Your task to perform on an android device: Go to notification settings Image 0: 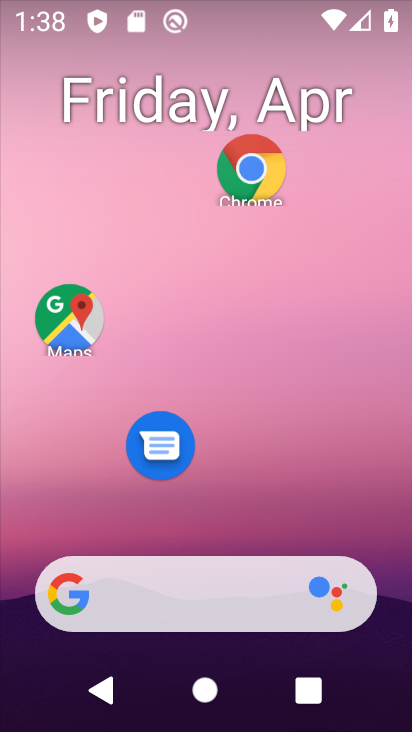
Step 0: drag from (256, 577) to (239, 77)
Your task to perform on an android device: Go to notification settings Image 1: 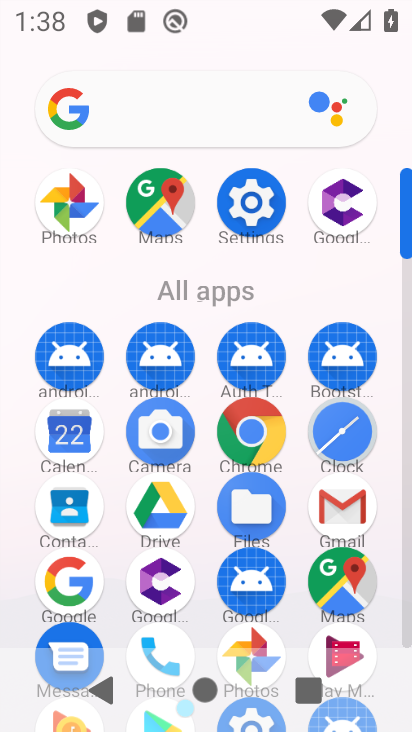
Step 1: drag from (182, 607) to (294, 132)
Your task to perform on an android device: Go to notification settings Image 2: 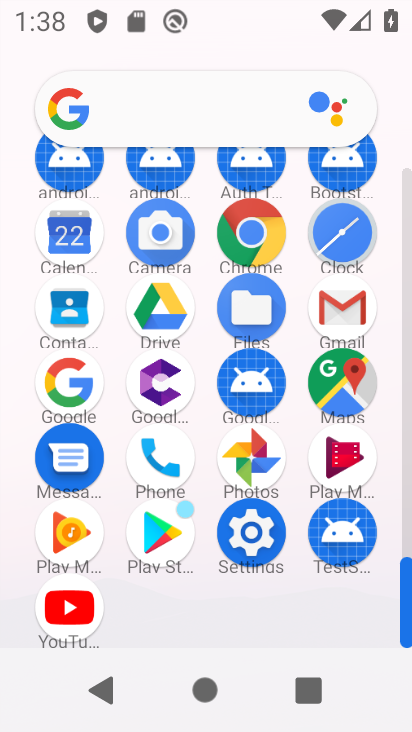
Step 2: click (250, 548)
Your task to perform on an android device: Go to notification settings Image 3: 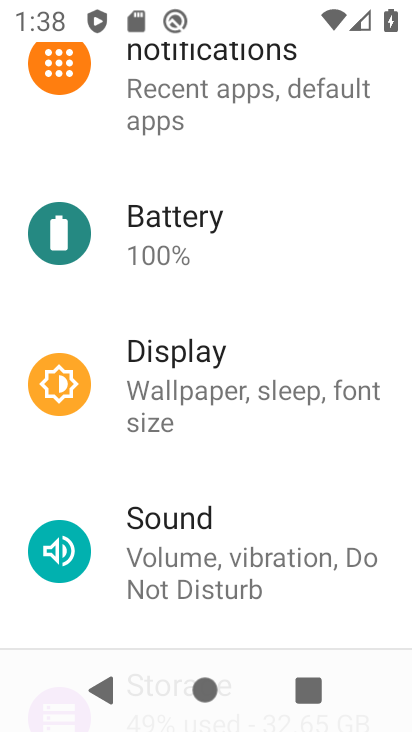
Step 3: click (258, 545)
Your task to perform on an android device: Go to notification settings Image 4: 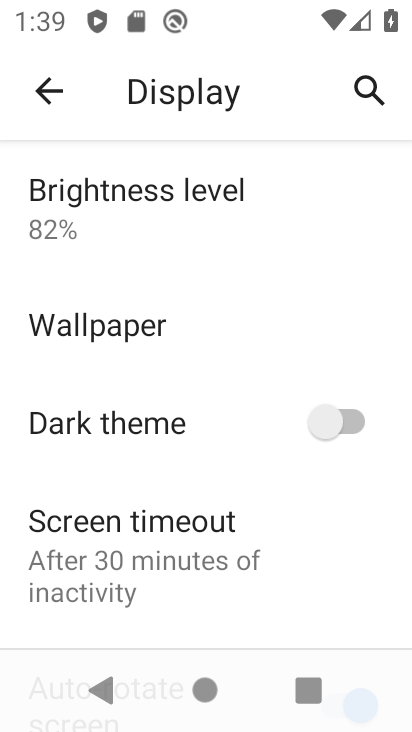
Step 4: click (36, 84)
Your task to perform on an android device: Go to notification settings Image 5: 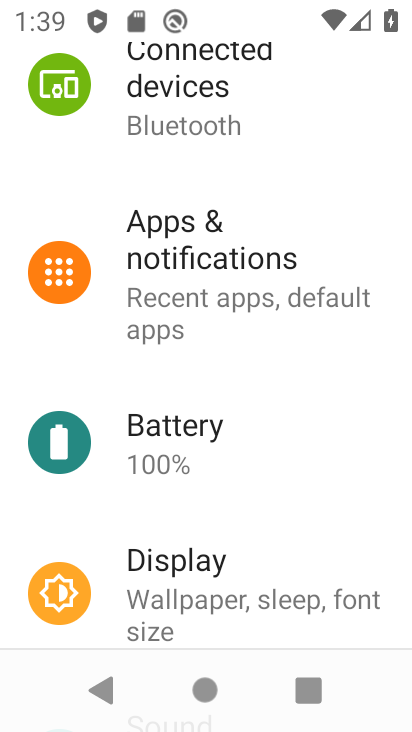
Step 5: click (253, 255)
Your task to perform on an android device: Go to notification settings Image 6: 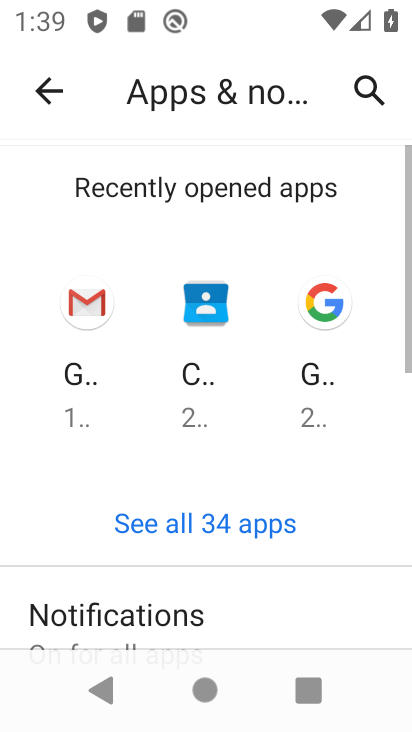
Step 6: task complete